Your task to perform on an android device: Go to Google Image 0: 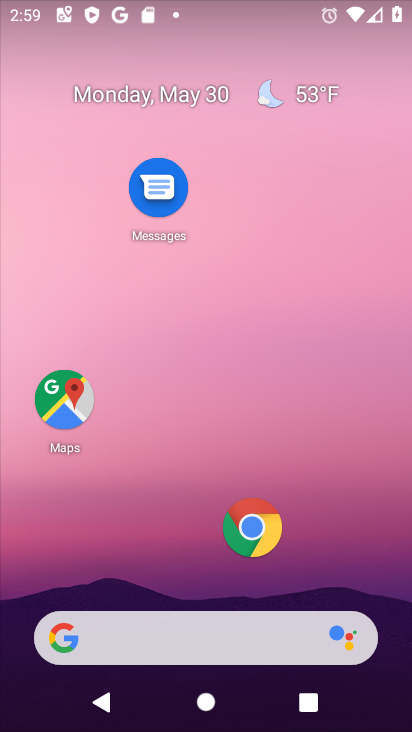
Step 0: drag from (156, 531) to (266, 6)
Your task to perform on an android device: Go to Google Image 1: 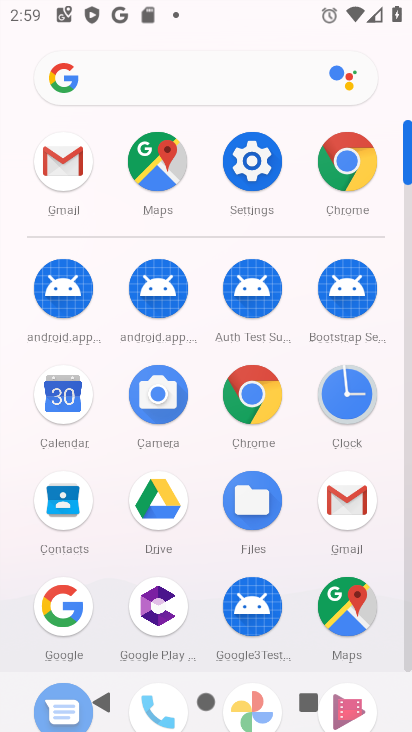
Step 1: click (74, 611)
Your task to perform on an android device: Go to Google Image 2: 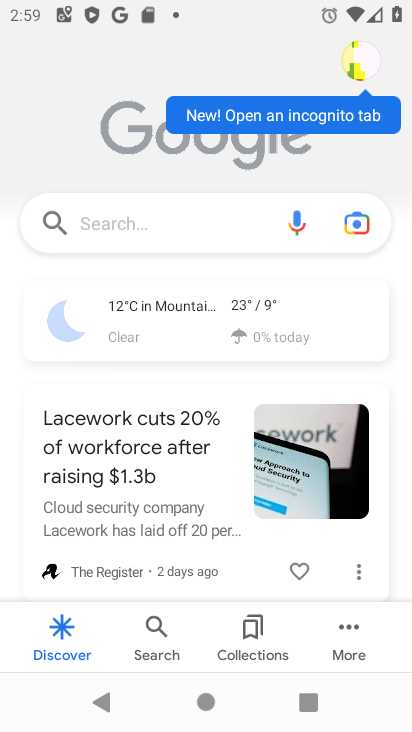
Step 2: task complete